Your task to perform on an android device: Open Yahoo.com Image 0: 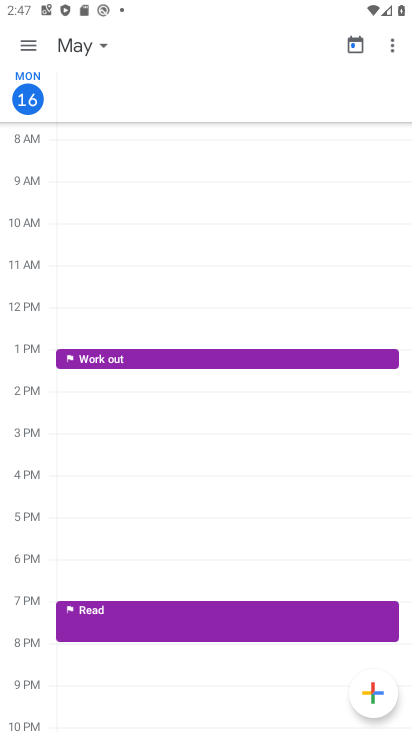
Step 0: press home button
Your task to perform on an android device: Open Yahoo.com Image 1: 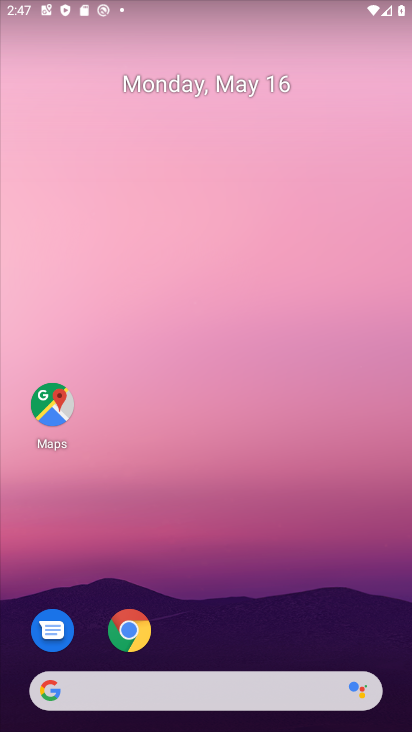
Step 1: click (126, 629)
Your task to perform on an android device: Open Yahoo.com Image 2: 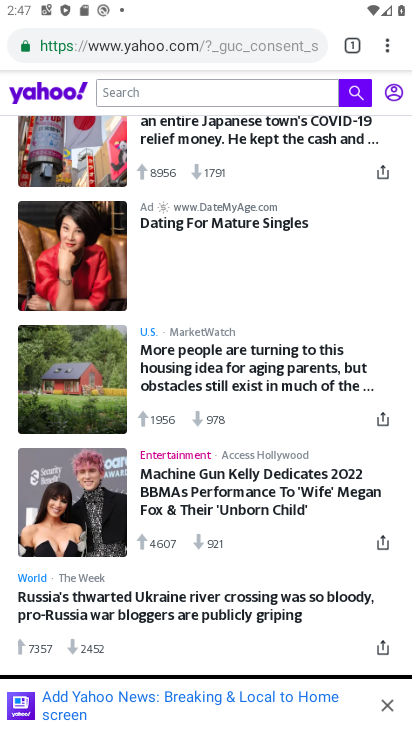
Step 2: task complete